Your task to perform on an android device: turn pop-ups on in chrome Image 0: 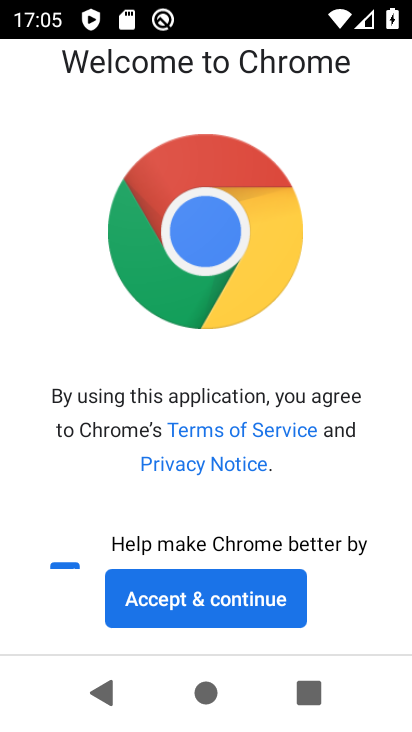
Step 0: click (183, 589)
Your task to perform on an android device: turn pop-ups on in chrome Image 1: 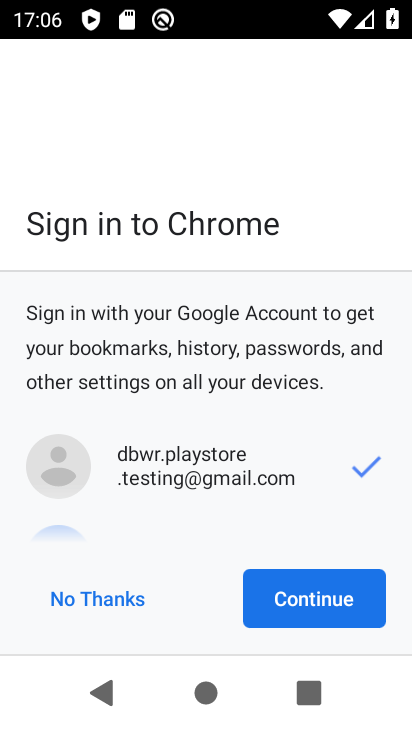
Step 1: click (328, 593)
Your task to perform on an android device: turn pop-ups on in chrome Image 2: 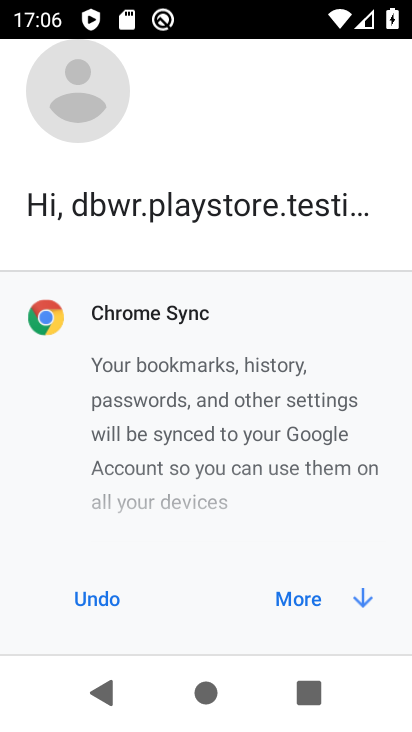
Step 2: click (377, 595)
Your task to perform on an android device: turn pop-ups on in chrome Image 3: 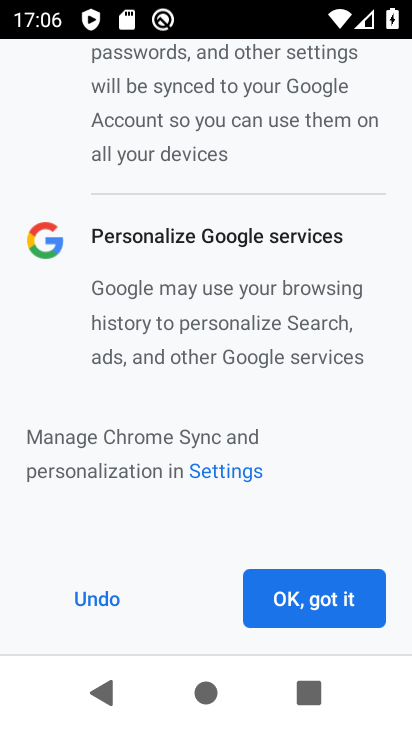
Step 3: click (331, 604)
Your task to perform on an android device: turn pop-ups on in chrome Image 4: 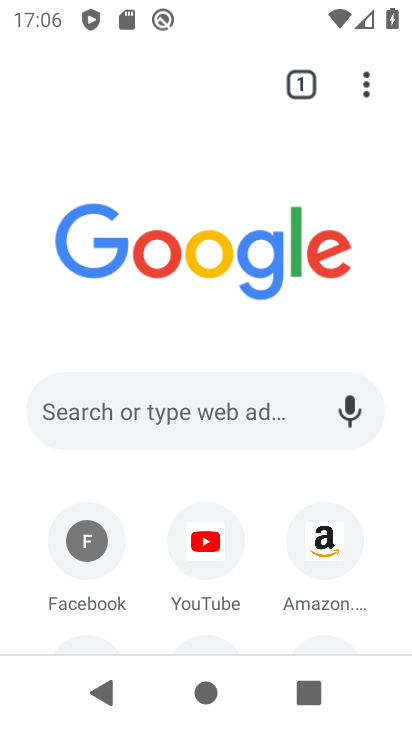
Step 4: click (366, 77)
Your task to perform on an android device: turn pop-ups on in chrome Image 5: 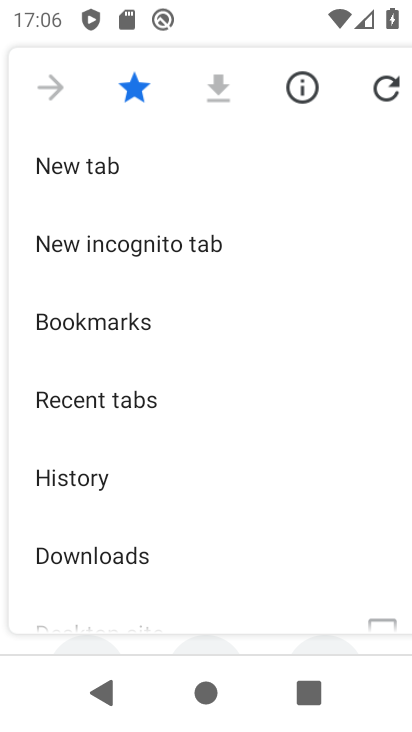
Step 5: drag from (233, 496) to (230, 323)
Your task to perform on an android device: turn pop-ups on in chrome Image 6: 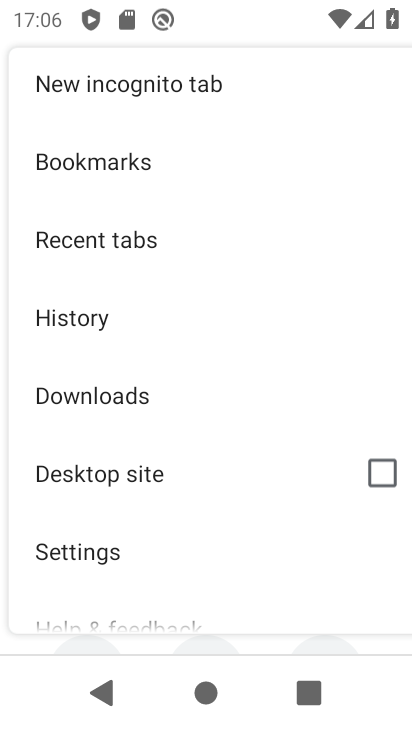
Step 6: click (74, 556)
Your task to perform on an android device: turn pop-ups on in chrome Image 7: 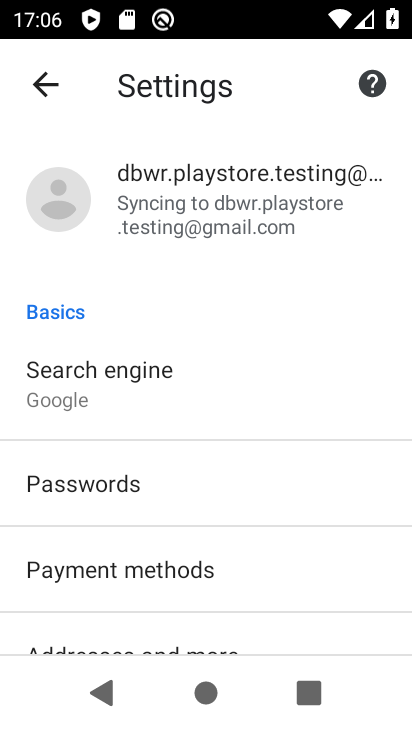
Step 7: drag from (238, 527) to (252, 338)
Your task to perform on an android device: turn pop-ups on in chrome Image 8: 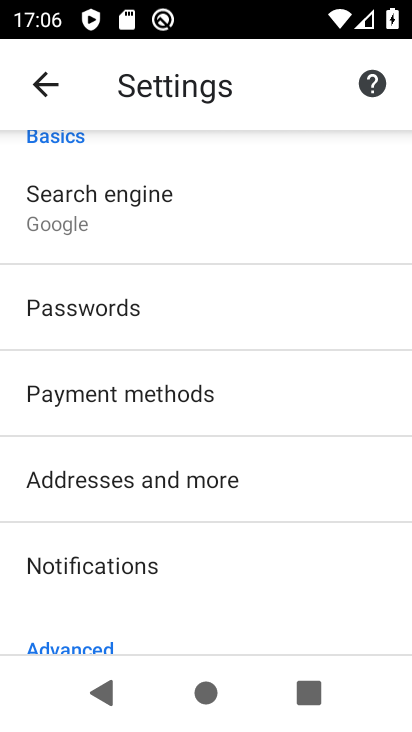
Step 8: drag from (218, 599) to (237, 244)
Your task to perform on an android device: turn pop-ups on in chrome Image 9: 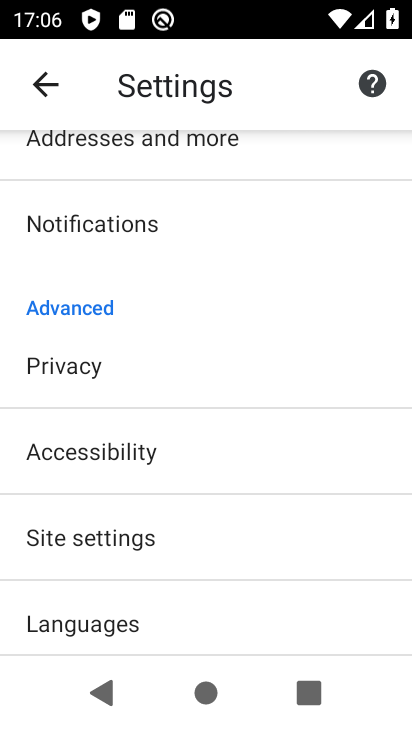
Step 9: click (73, 533)
Your task to perform on an android device: turn pop-ups on in chrome Image 10: 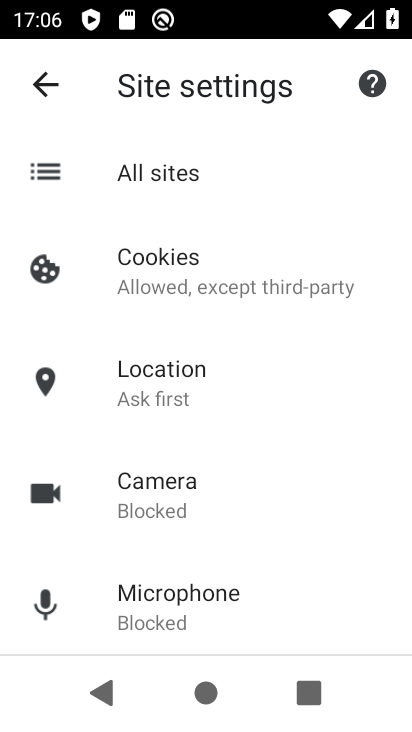
Step 10: drag from (199, 551) to (234, 298)
Your task to perform on an android device: turn pop-ups on in chrome Image 11: 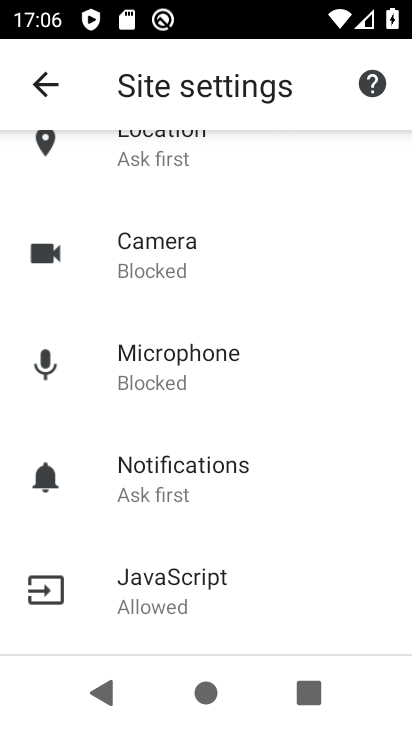
Step 11: drag from (255, 477) to (242, 95)
Your task to perform on an android device: turn pop-ups on in chrome Image 12: 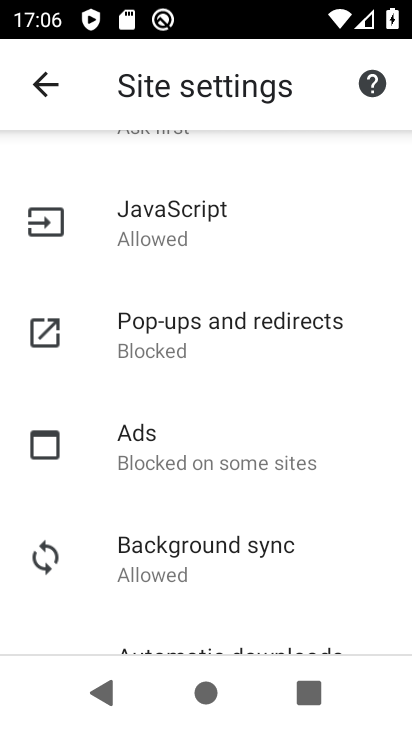
Step 12: click (141, 335)
Your task to perform on an android device: turn pop-ups on in chrome Image 13: 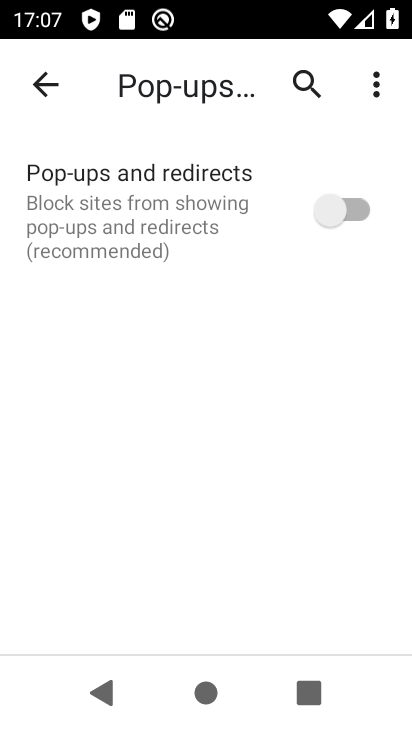
Step 13: click (320, 205)
Your task to perform on an android device: turn pop-ups on in chrome Image 14: 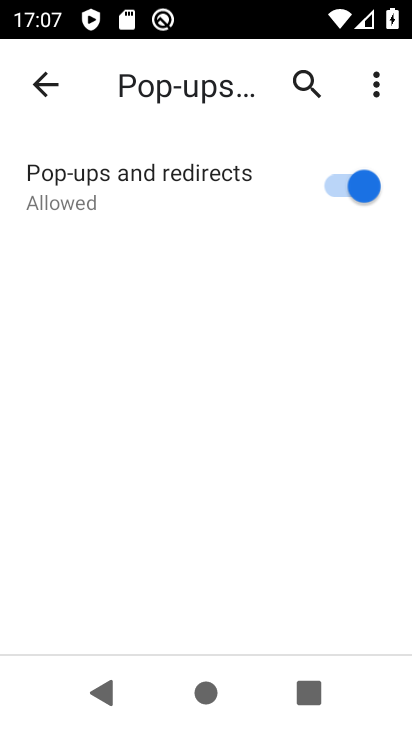
Step 14: task complete